Your task to perform on an android device: set default search engine in the chrome app Image 0: 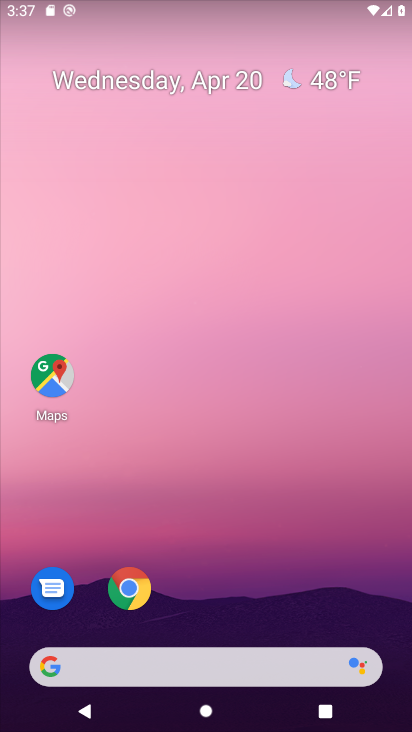
Step 0: drag from (301, 561) to (235, 66)
Your task to perform on an android device: set default search engine in the chrome app Image 1: 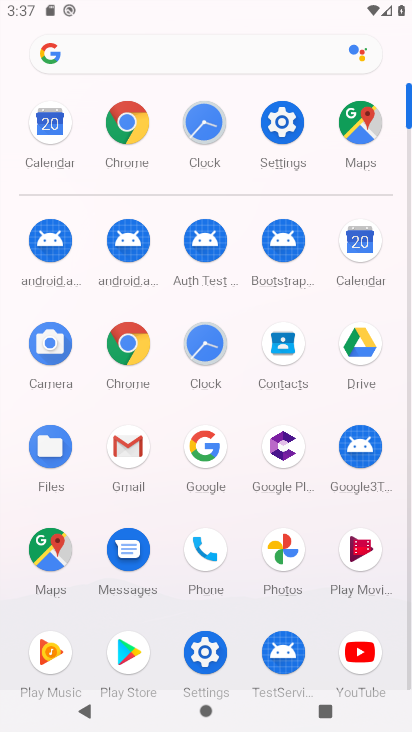
Step 1: click (131, 335)
Your task to perform on an android device: set default search engine in the chrome app Image 2: 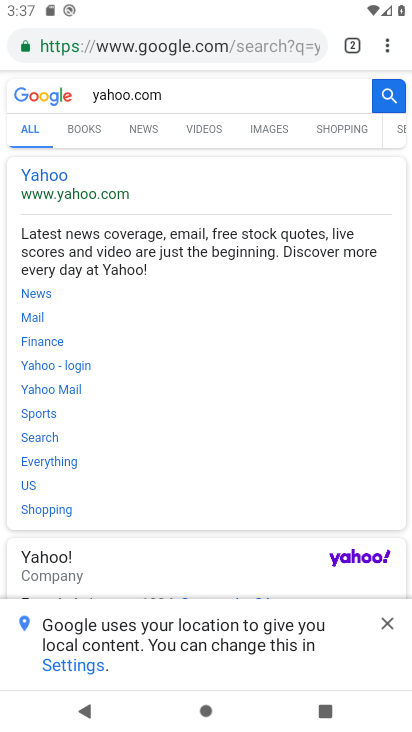
Step 2: click (386, 43)
Your task to perform on an android device: set default search engine in the chrome app Image 3: 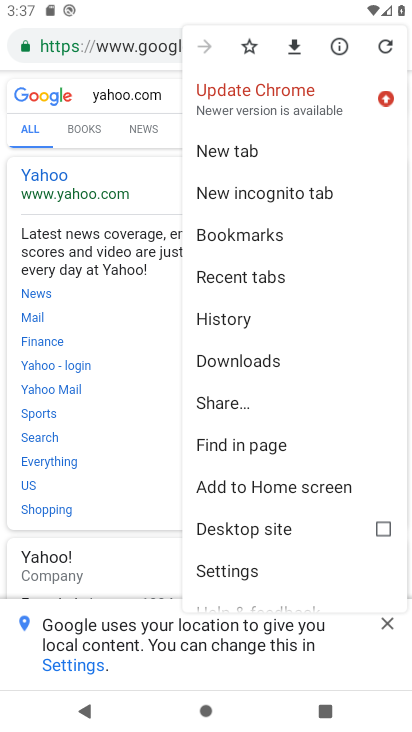
Step 3: click (255, 579)
Your task to perform on an android device: set default search engine in the chrome app Image 4: 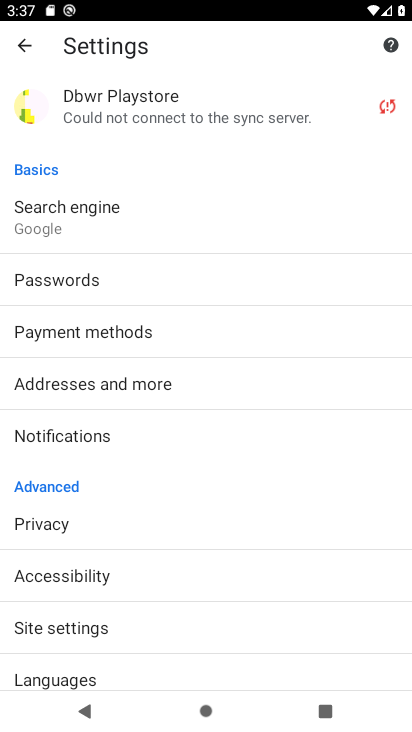
Step 4: drag from (252, 556) to (231, 393)
Your task to perform on an android device: set default search engine in the chrome app Image 5: 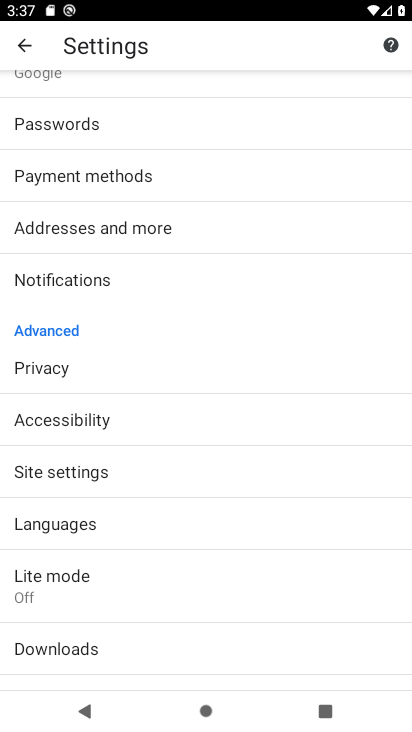
Step 5: drag from (256, 551) to (213, 349)
Your task to perform on an android device: set default search engine in the chrome app Image 6: 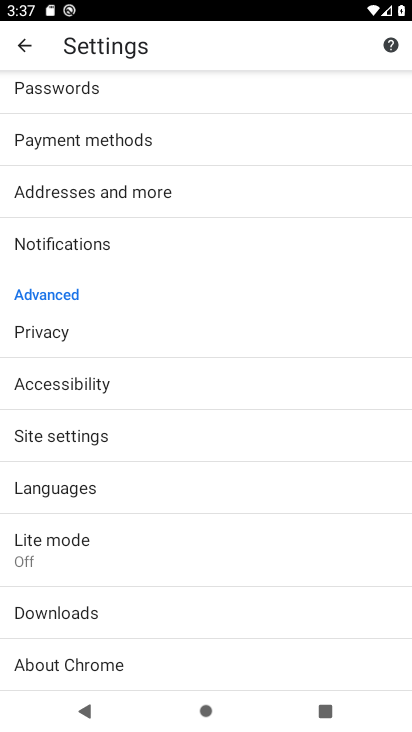
Step 6: drag from (282, 600) to (239, 405)
Your task to perform on an android device: set default search engine in the chrome app Image 7: 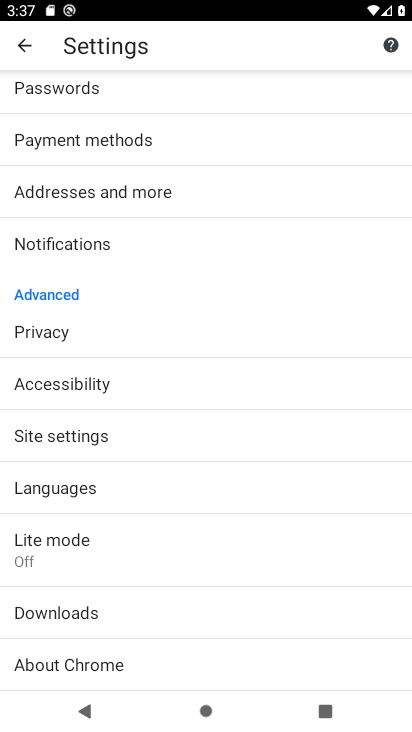
Step 7: drag from (248, 216) to (232, 445)
Your task to perform on an android device: set default search engine in the chrome app Image 8: 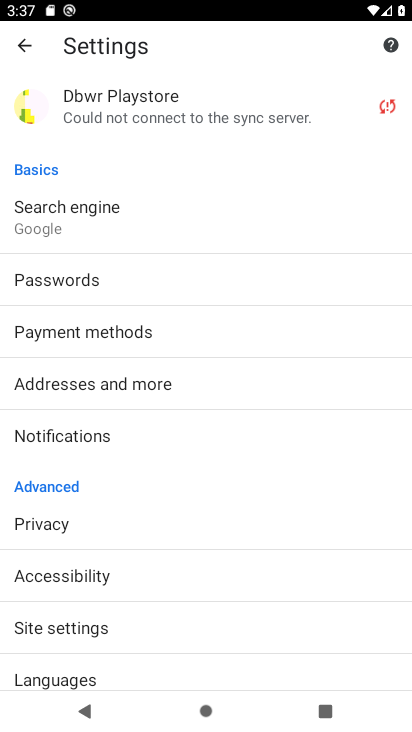
Step 8: click (91, 229)
Your task to perform on an android device: set default search engine in the chrome app Image 9: 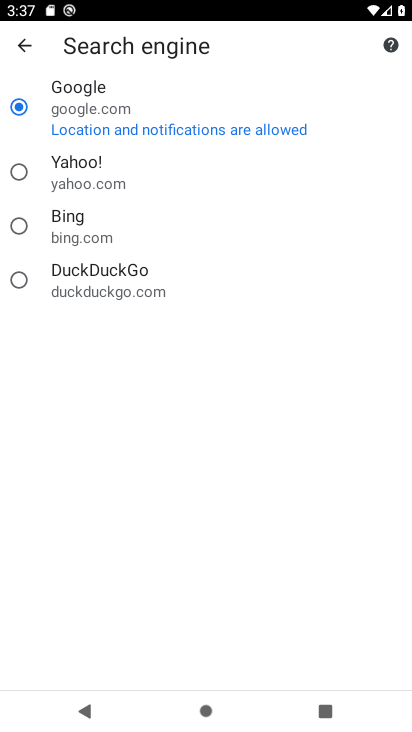
Step 9: click (96, 236)
Your task to perform on an android device: set default search engine in the chrome app Image 10: 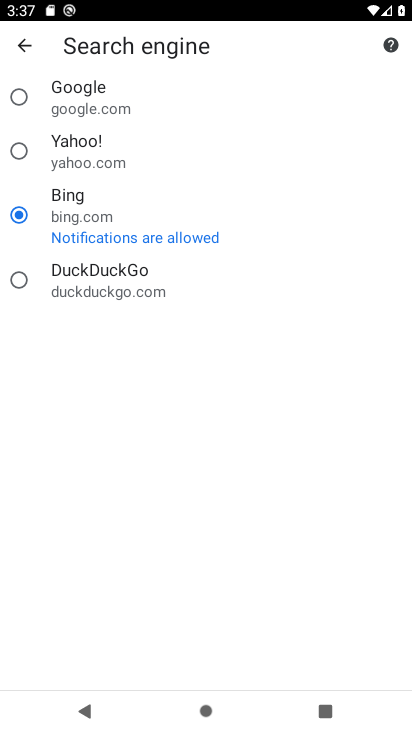
Step 10: task complete